Your task to perform on an android device: toggle notification dots Image 0: 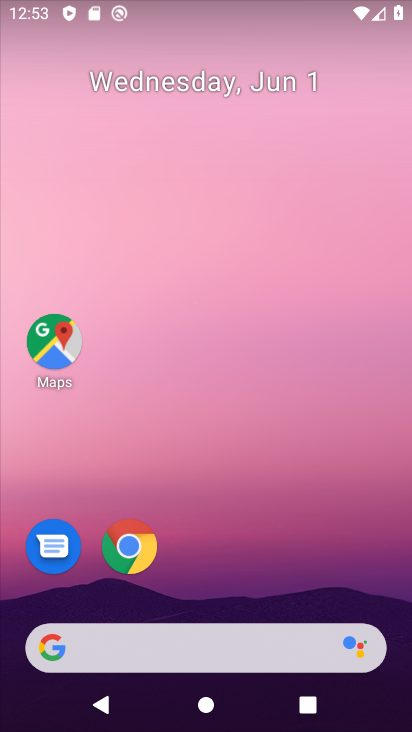
Step 0: drag from (163, 644) to (333, 64)
Your task to perform on an android device: toggle notification dots Image 1: 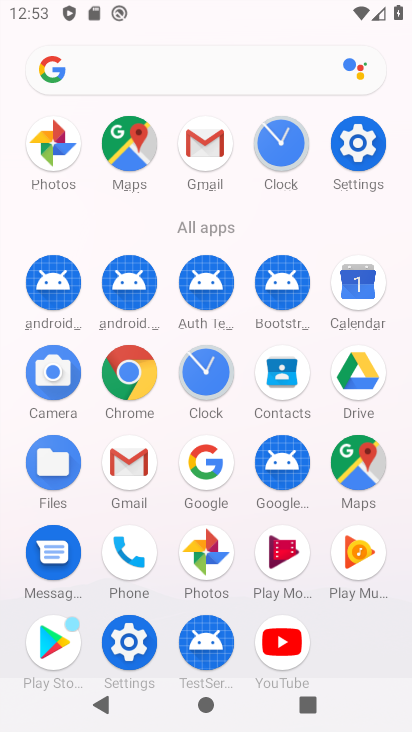
Step 1: click (133, 669)
Your task to perform on an android device: toggle notification dots Image 2: 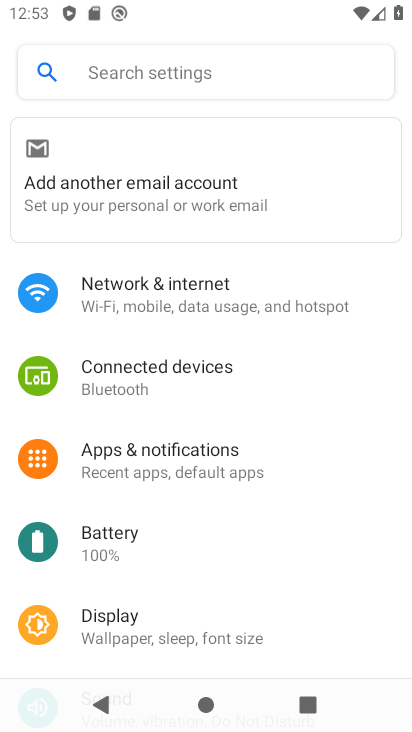
Step 2: click (195, 481)
Your task to perform on an android device: toggle notification dots Image 3: 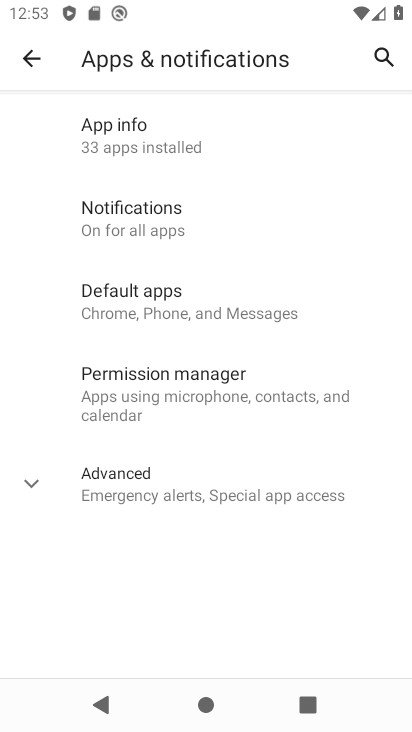
Step 3: click (189, 190)
Your task to perform on an android device: toggle notification dots Image 4: 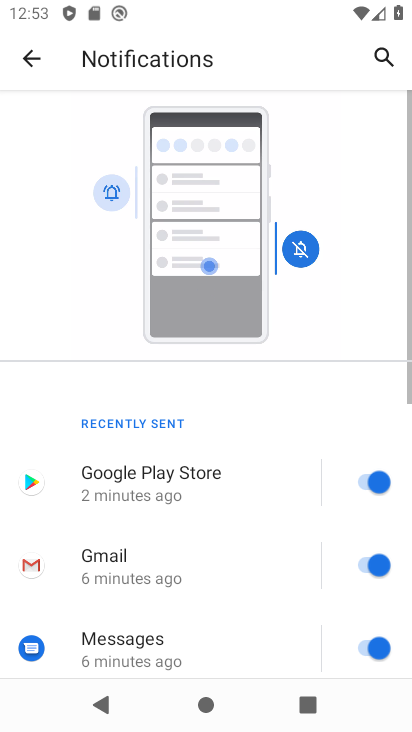
Step 4: drag from (239, 532) to (187, 4)
Your task to perform on an android device: toggle notification dots Image 5: 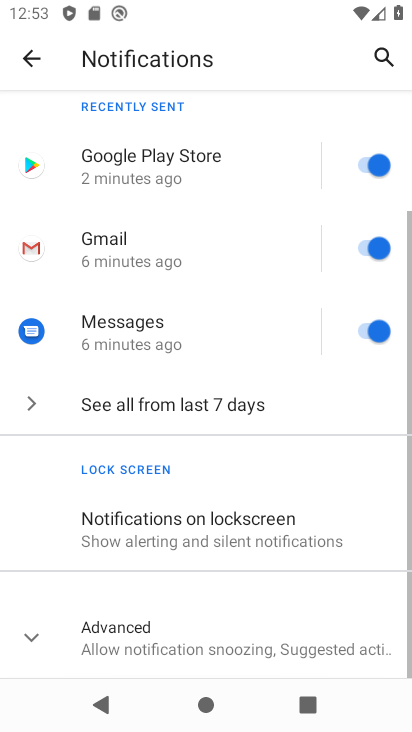
Step 5: click (146, 646)
Your task to perform on an android device: toggle notification dots Image 6: 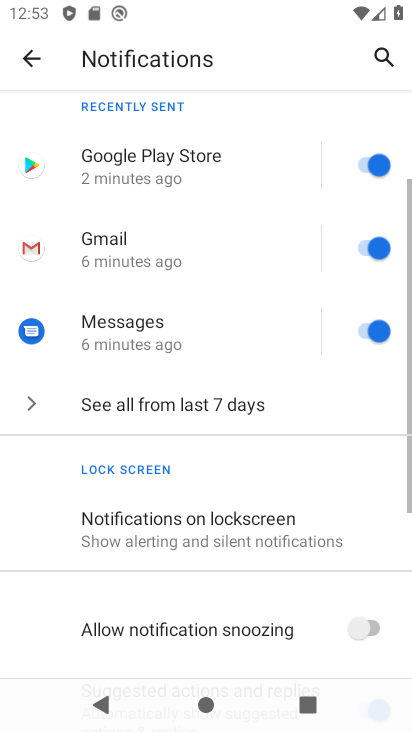
Step 6: drag from (152, 642) to (91, 171)
Your task to perform on an android device: toggle notification dots Image 7: 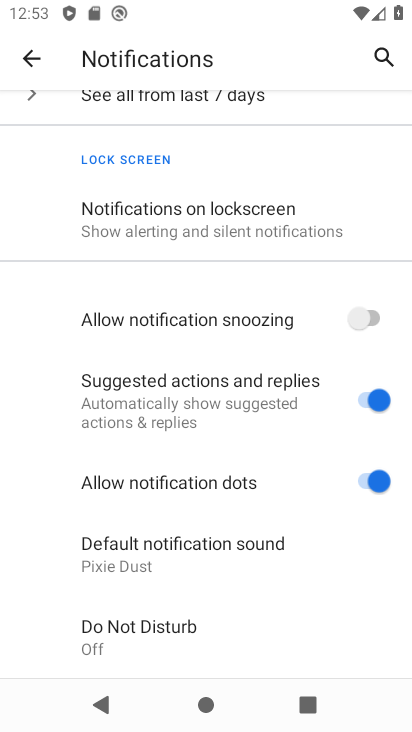
Step 7: click (388, 493)
Your task to perform on an android device: toggle notification dots Image 8: 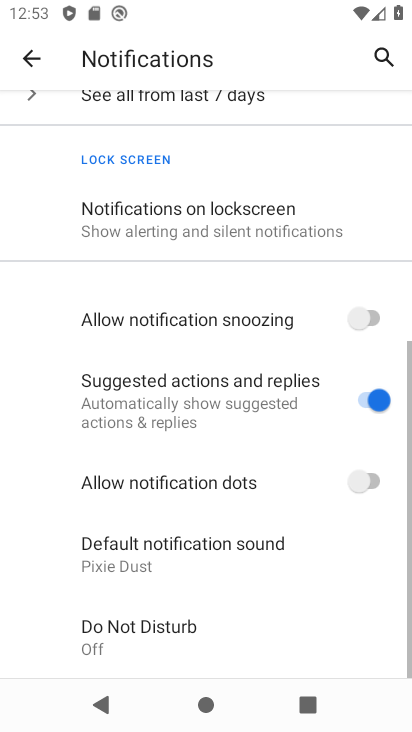
Step 8: task complete